Your task to perform on an android device: Add bose soundlink to the cart on amazon.com Image 0: 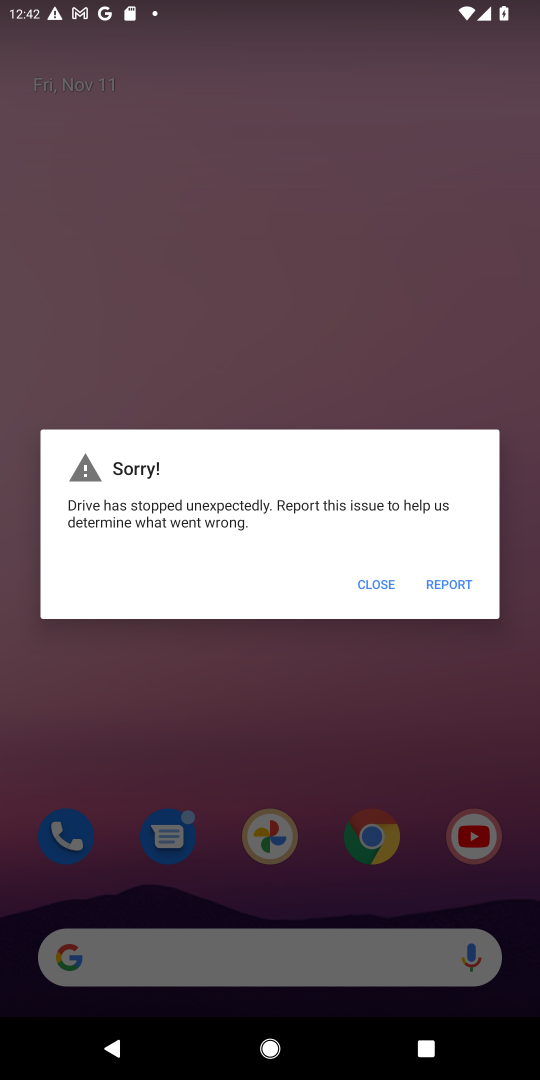
Step 0: press home button
Your task to perform on an android device: Add bose soundlink to the cart on amazon.com Image 1: 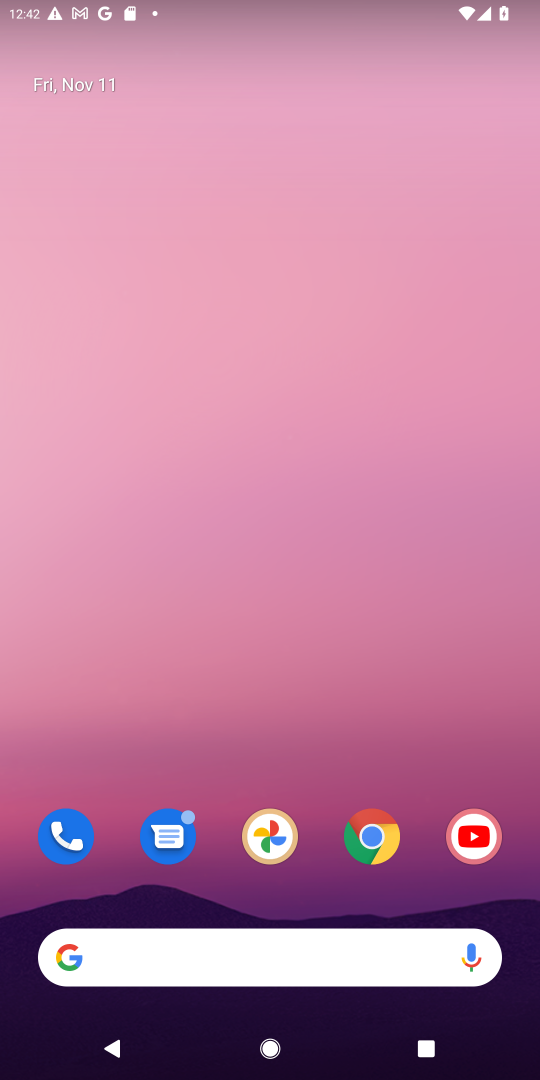
Step 1: click (283, 964)
Your task to perform on an android device: Add bose soundlink to the cart on amazon.com Image 2: 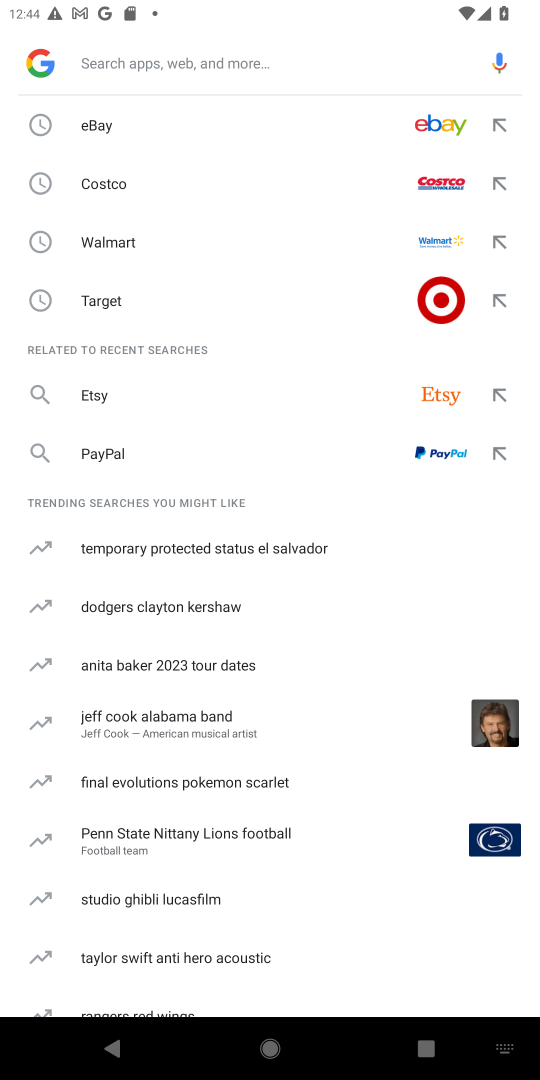
Step 2: type "amazon.com"
Your task to perform on an android device: Add bose soundlink to the cart on amazon.com Image 3: 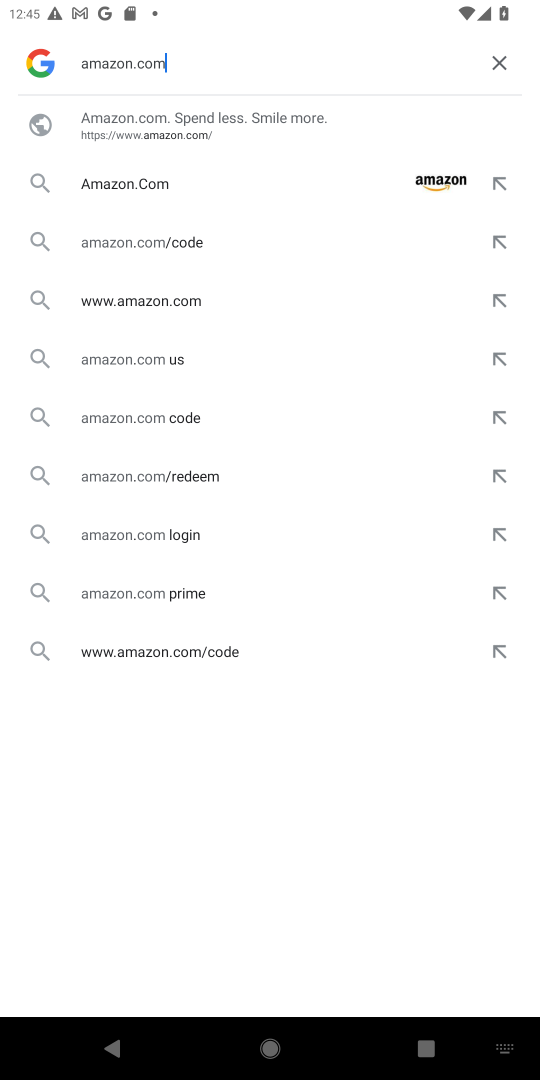
Step 3: click (175, 183)
Your task to perform on an android device: Add bose soundlink to the cart on amazon.com Image 4: 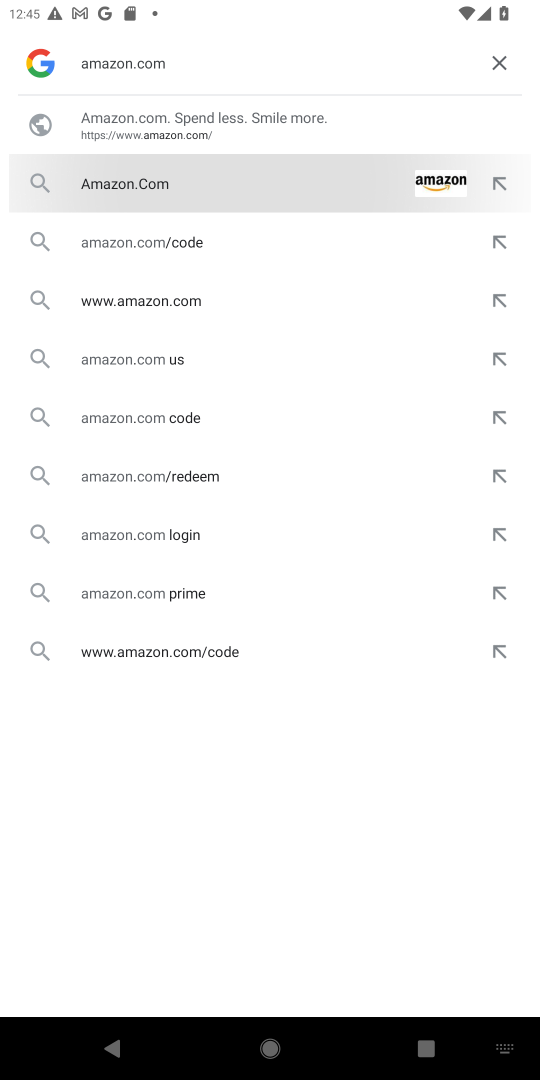
Step 4: click (175, 183)
Your task to perform on an android device: Add bose soundlink to the cart on amazon.com Image 5: 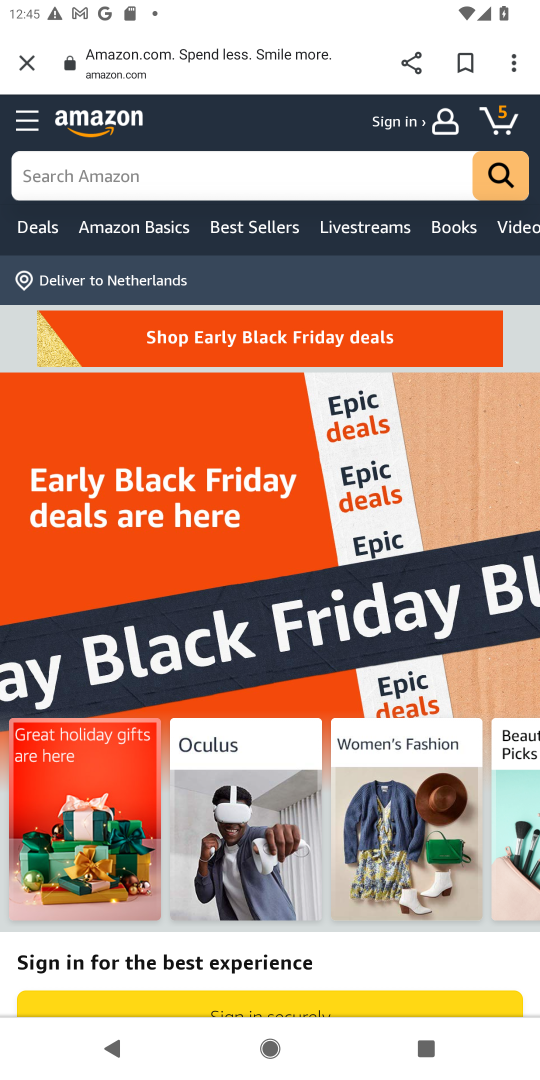
Step 5: click (118, 174)
Your task to perform on an android device: Add bose soundlink to the cart on amazon.com Image 6: 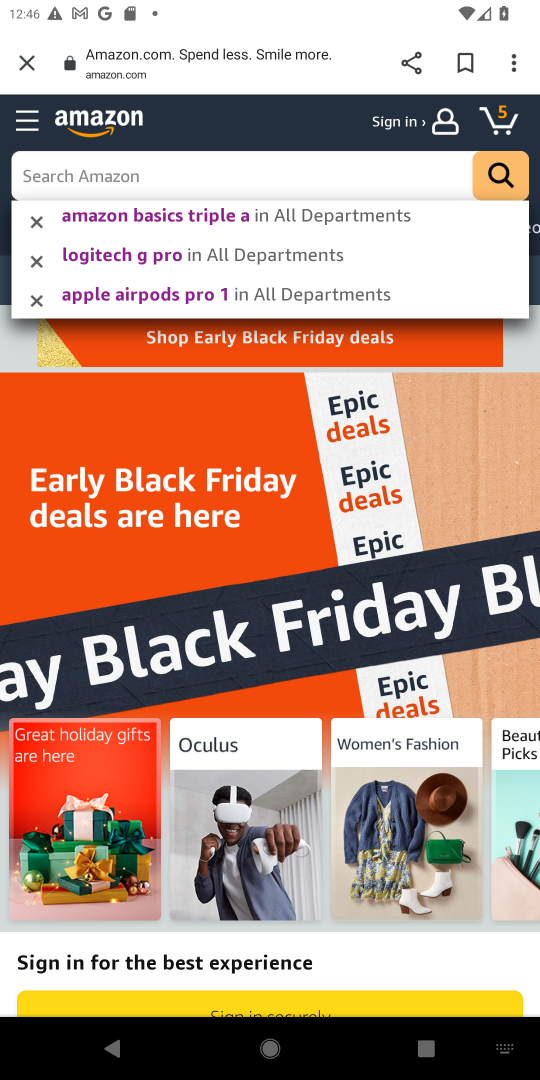
Step 6: type "bose soundlink "
Your task to perform on an android device: Add bose soundlink to the cart on amazon.com Image 7: 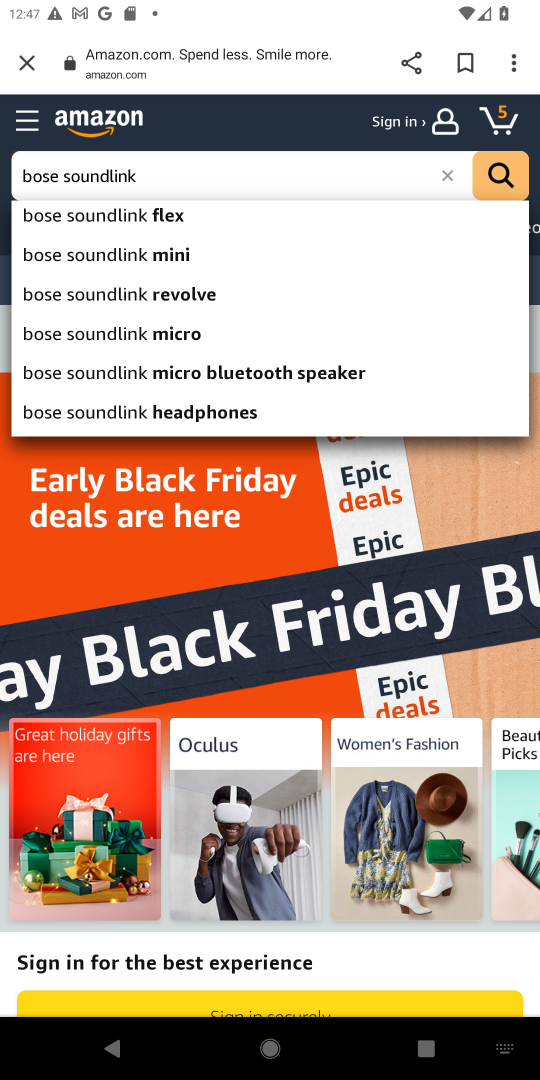
Step 7: click (161, 247)
Your task to perform on an android device: Add bose soundlink to the cart on amazon.com Image 8: 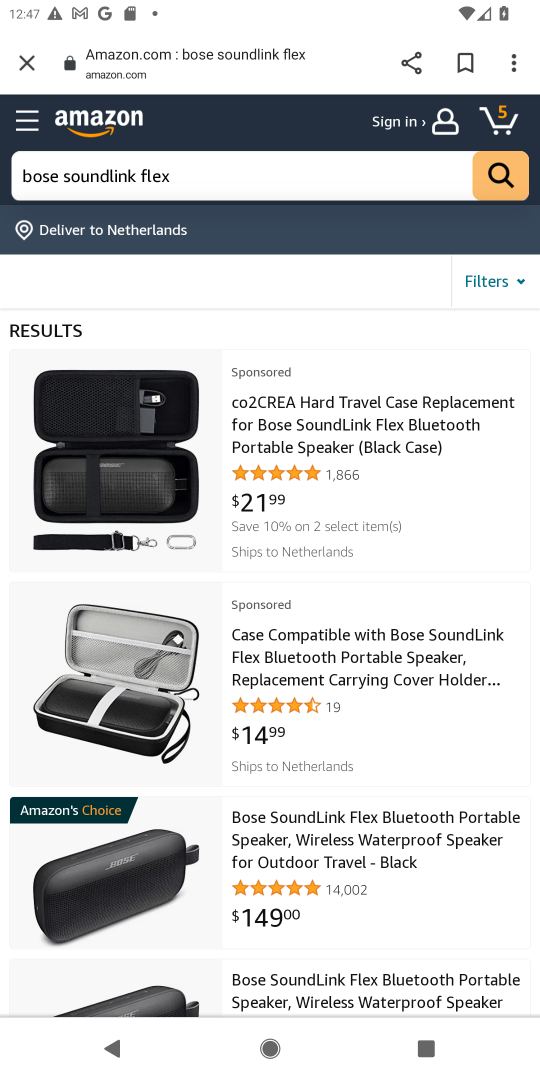
Step 8: click (265, 401)
Your task to perform on an android device: Add bose soundlink to the cart on amazon.com Image 9: 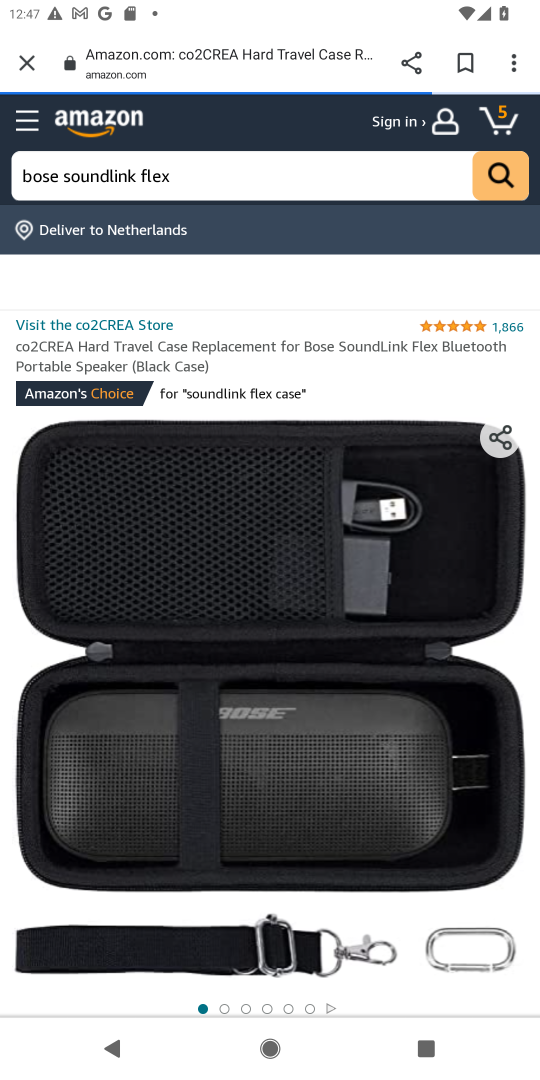
Step 9: drag from (197, 803) to (318, 543)
Your task to perform on an android device: Add bose soundlink to the cart on amazon.com Image 10: 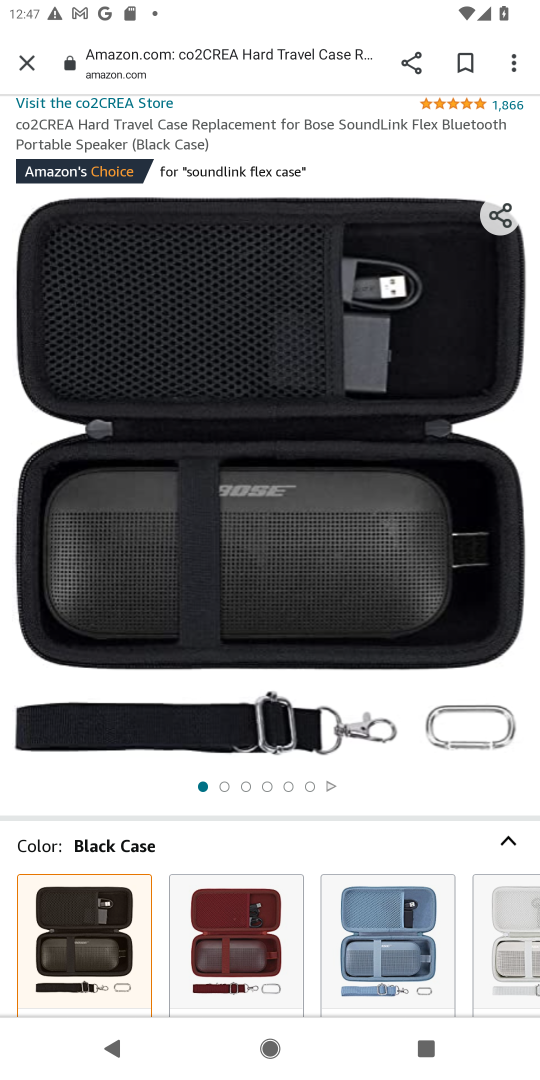
Step 10: drag from (293, 659) to (293, 330)
Your task to perform on an android device: Add bose soundlink to the cart on amazon.com Image 11: 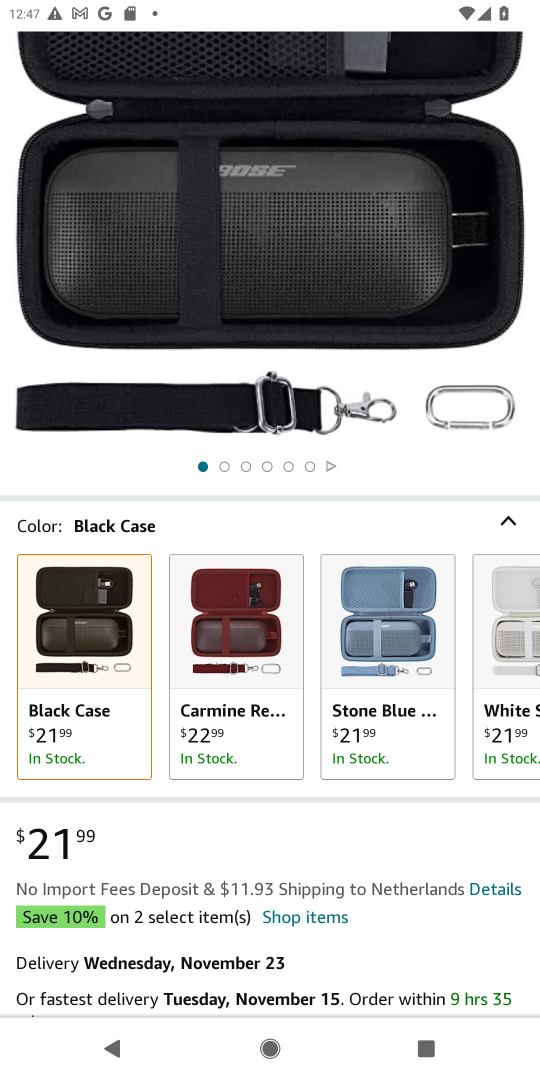
Step 11: drag from (222, 858) to (336, 389)
Your task to perform on an android device: Add bose soundlink to the cart on amazon.com Image 12: 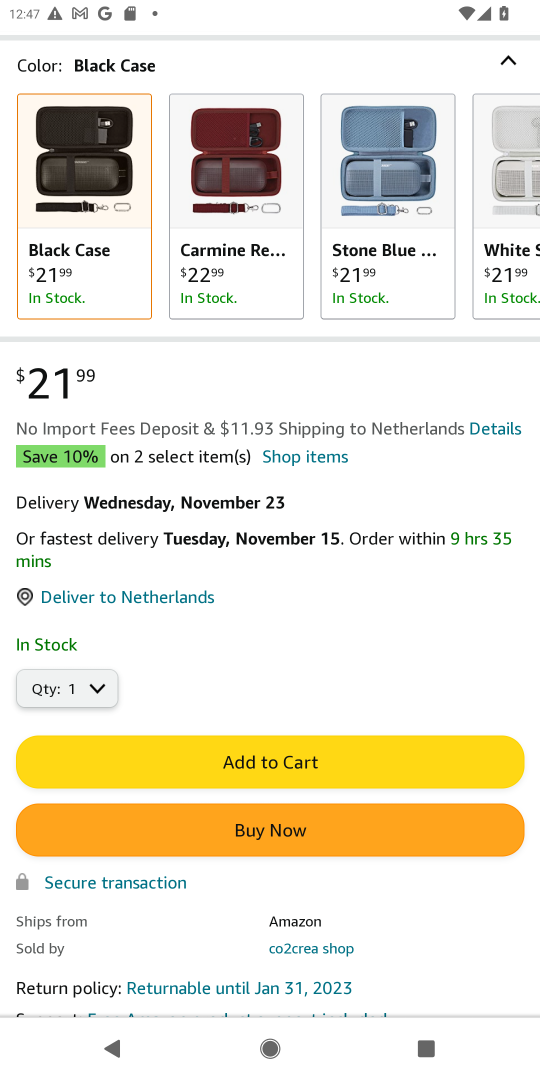
Step 12: click (277, 759)
Your task to perform on an android device: Add bose soundlink to the cart on amazon.com Image 13: 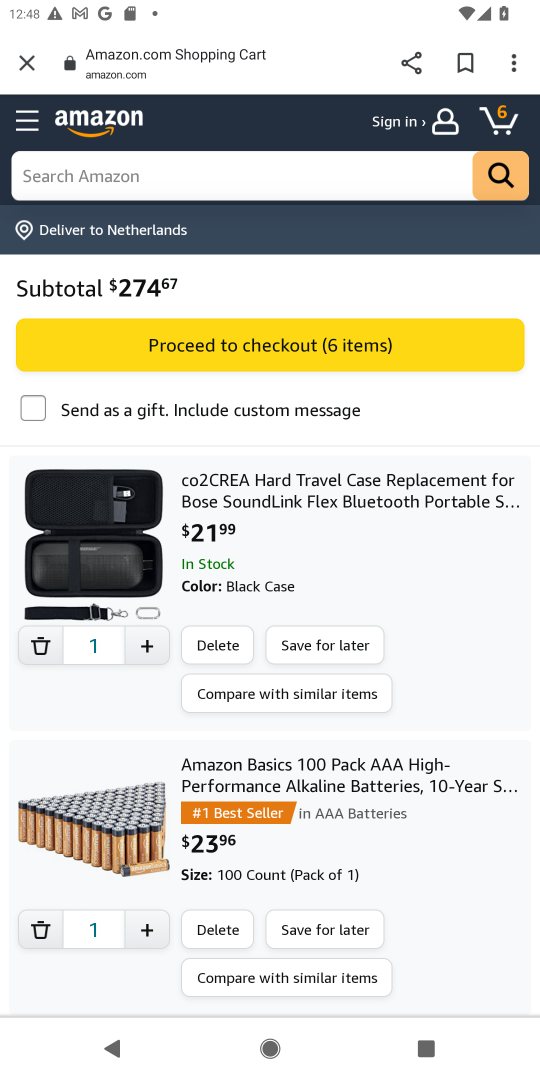
Step 13: task complete